Your task to perform on an android device: Go to wifi settings Image 0: 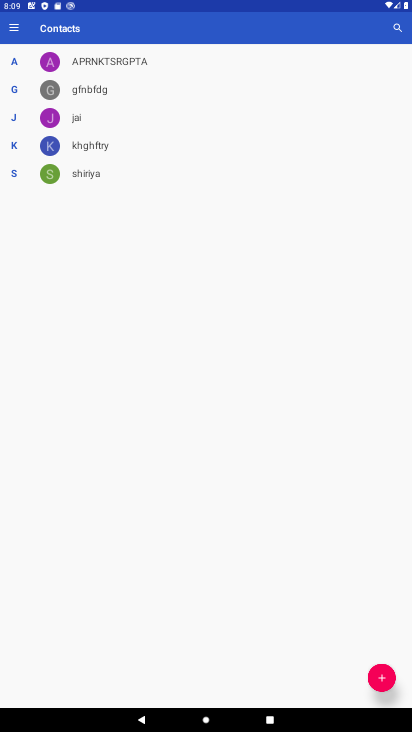
Step 0: press home button
Your task to perform on an android device: Go to wifi settings Image 1: 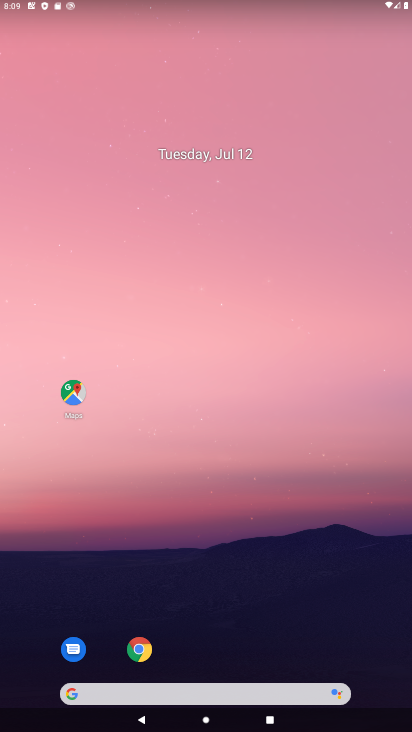
Step 1: drag from (197, 647) to (267, 107)
Your task to perform on an android device: Go to wifi settings Image 2: 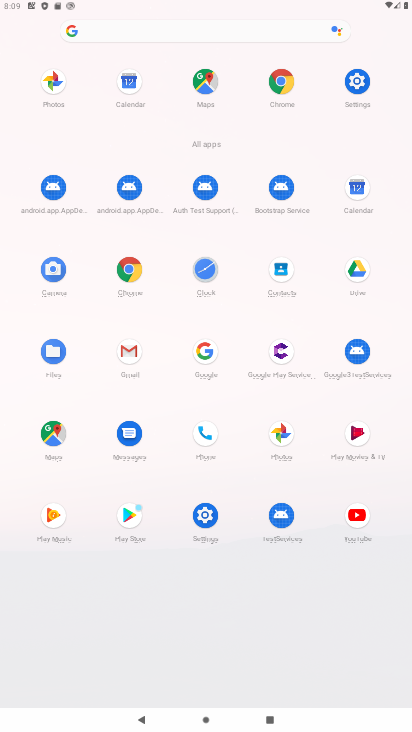
Step 2: click (352, 80)
Your task to perform on an android device: Go to wifi settings Image 3: 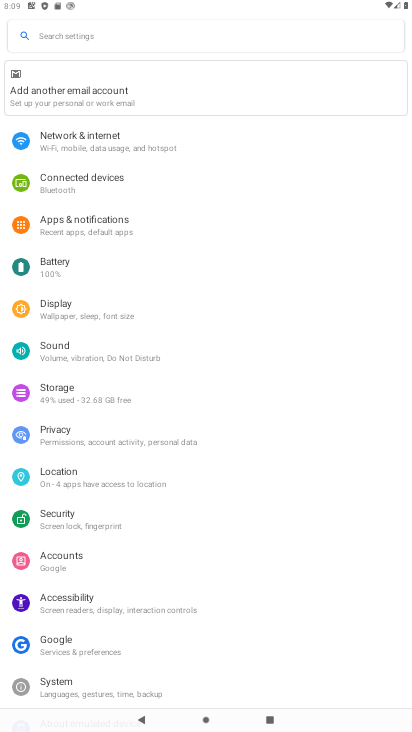
Step 3: click (88, 150)
Your task to perform on an android device: Go to wifi settings Image 4: 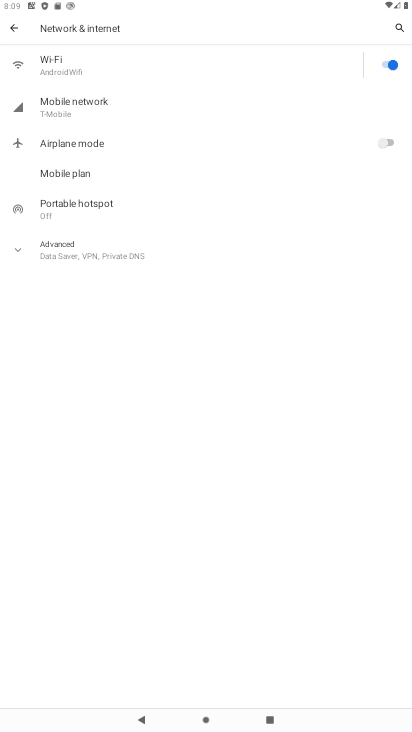
Step 4: click (101, 70)
Your task to perform on an android device: Go to wifi settings Image 5: 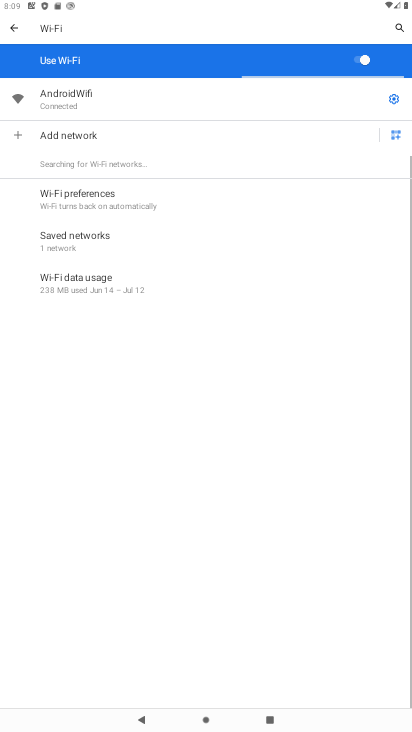
Step 5: click (393, 96)
Your task to perform on an android device: Go to wifi settings Image 6: 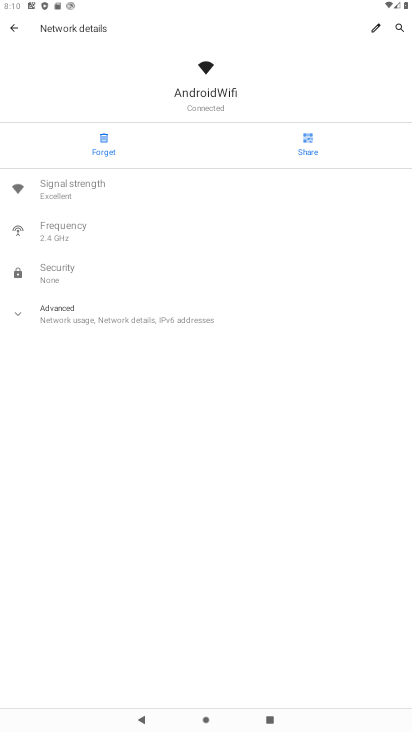
Step 6: task complete